Your task to perform on an android device: toggle airplane mode Image 0: 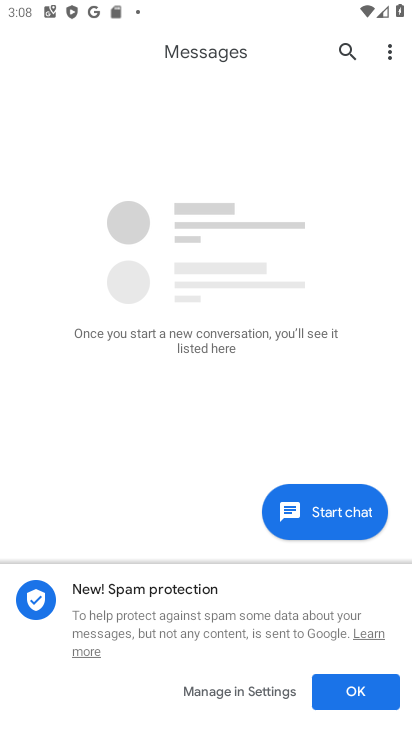
Step 0: press home button
Your task to perform on an android device: toggle airplane mode Image 1: 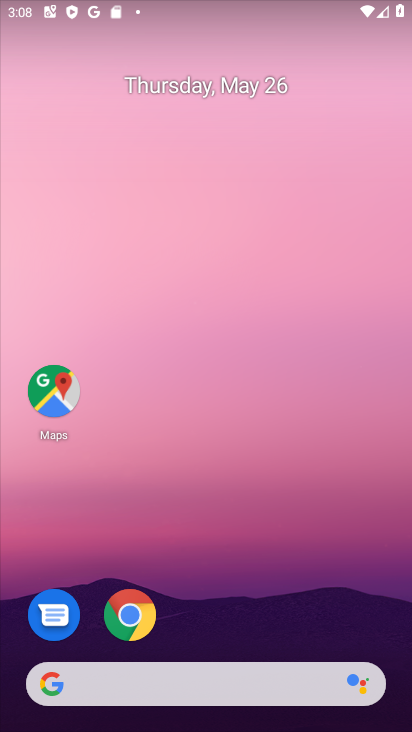
Step 1: drag from (249, 608) to (238, 75)
Your task to perform on an android device: toggle airplane mode Image 2: 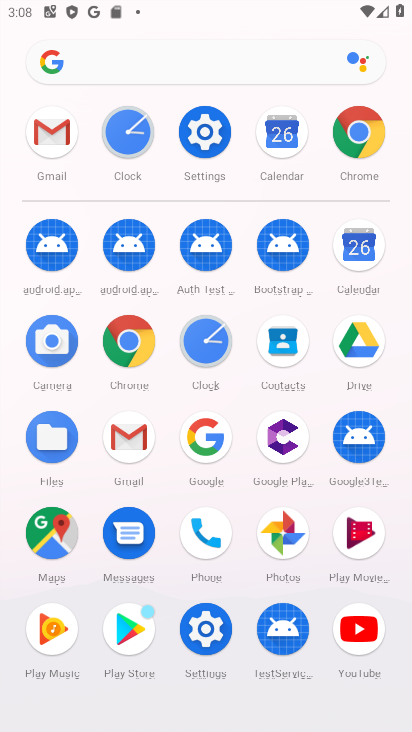
Step 2: click (217, 137)
Your task to perform on an android device: toggle airplane mode Image 3: 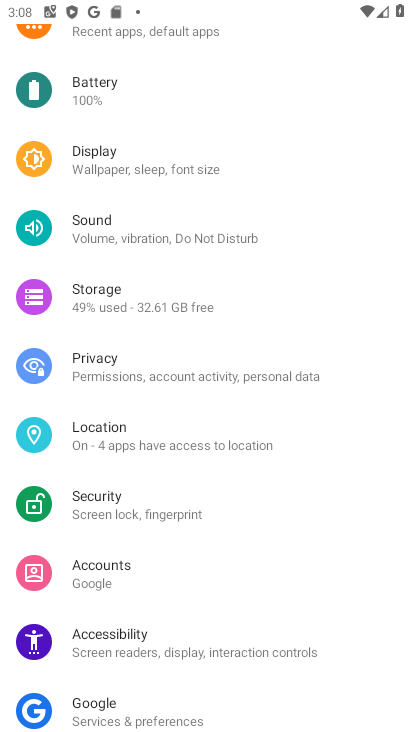
Step 3: drag from (185, 231) to (205, 611)
Your task to perform on an android device: toggle airplane mode Image 4: 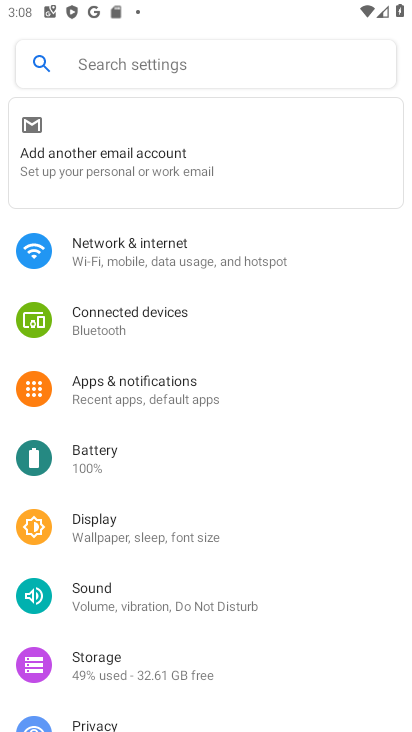
Step 4: click (115, 257)
Your task to perform on an android device: toggle airplane mode Image 5: 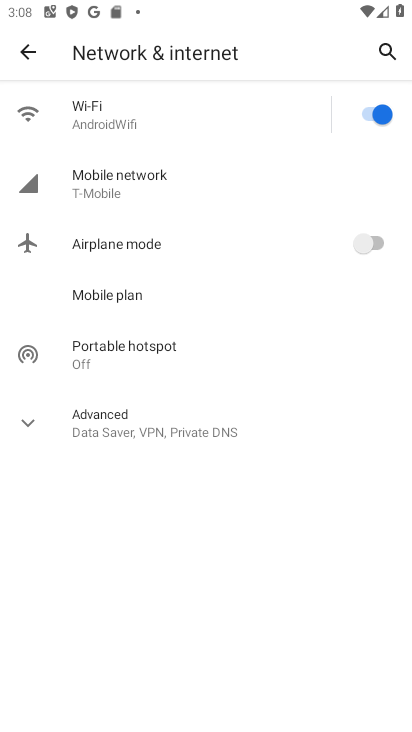
Step 5: click (379, 252)
Your task to perform on an android device: toggle airplane mode Image 6: 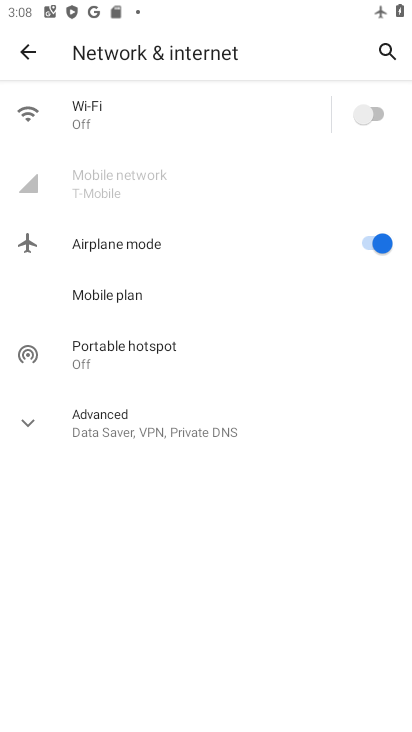
Step 6: task complete